Your task to perform on an android device: turn on the 24-hour format for clock Image 0: 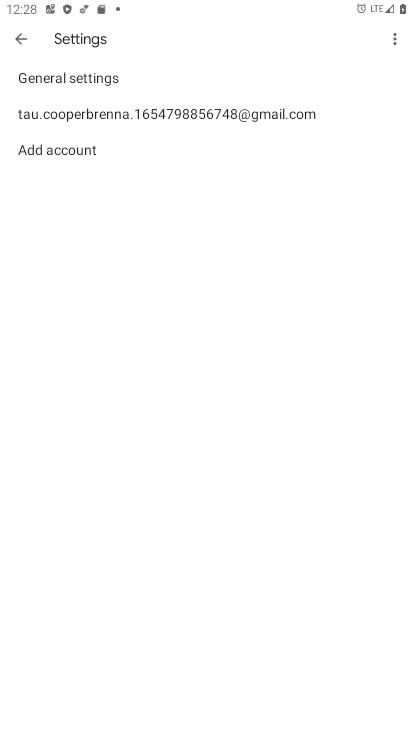
Step 0: press home button
Your task to perform on an android device: turn on the 24-hour format for clock Image 1: 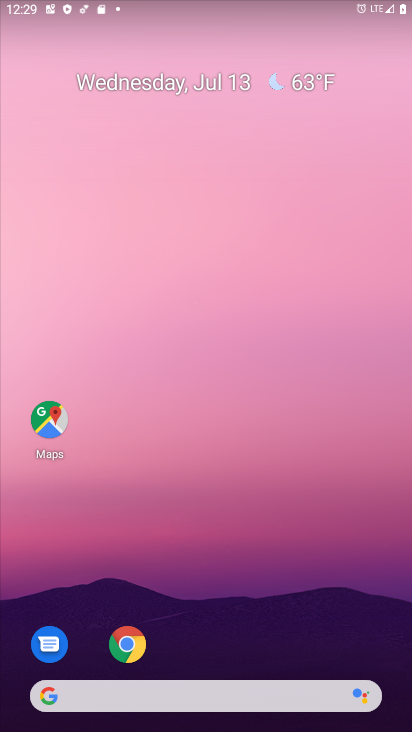
Step 1: drag from (217, 698) to (217, 208)
Your task to perform on an android device: turn on the 24-hour format for clock Image 2: 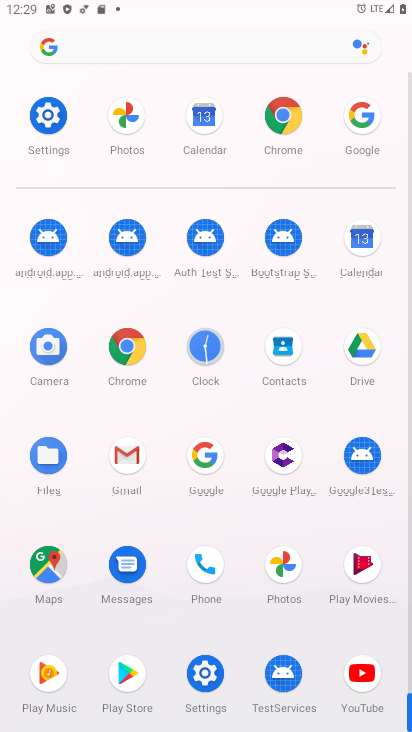
Step 2: click (205, 346)
Your task to perform on an android device: turn on the 24-hour format for clock Image 3: 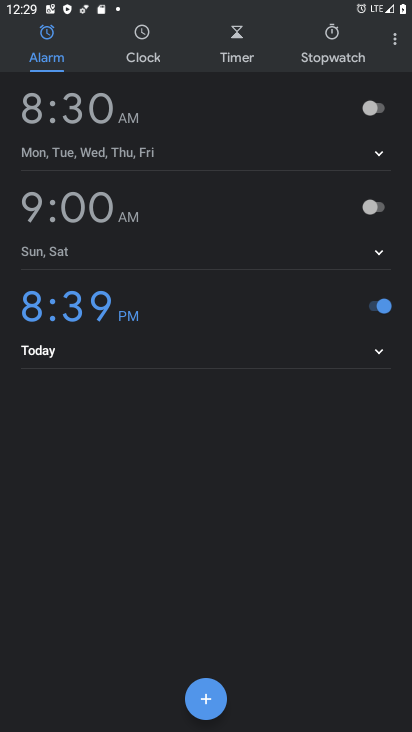
Step 3: click (397, 40)
Your task to perform on an android device: turn on the 24-hour format for clock Image 4: 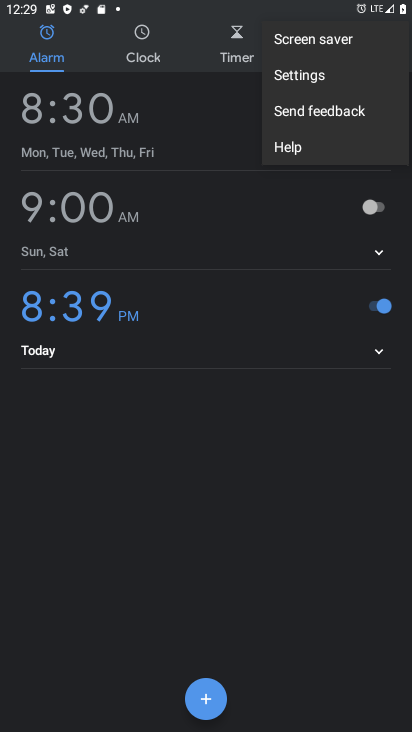
Step 4: click (302, 75)
Your task to perform on an android device: turn on the 24-hour format for clock Image 5: 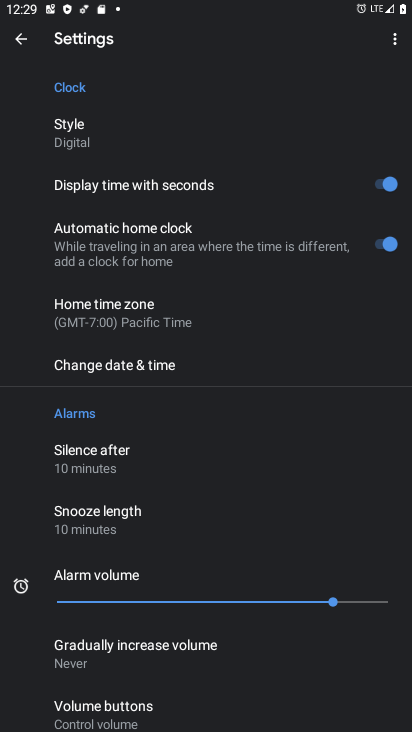
Step 5: click (150, 362)
Your task to perform on an android device: turn on the 24-hour format for clock Image 6: 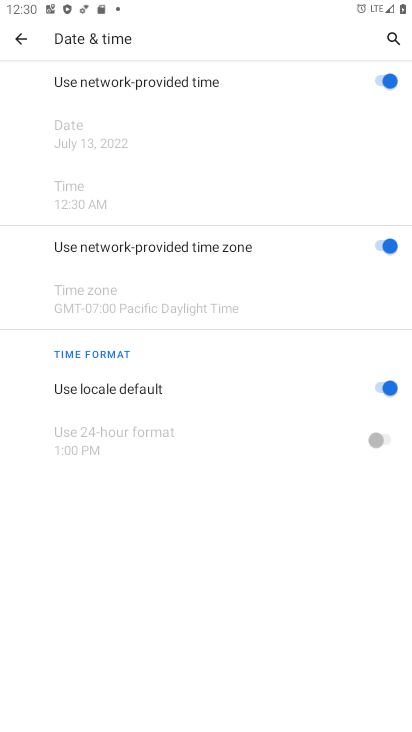
Step 6: task complete